Your task to perform on an android device: Go to wifi settings Image 0: 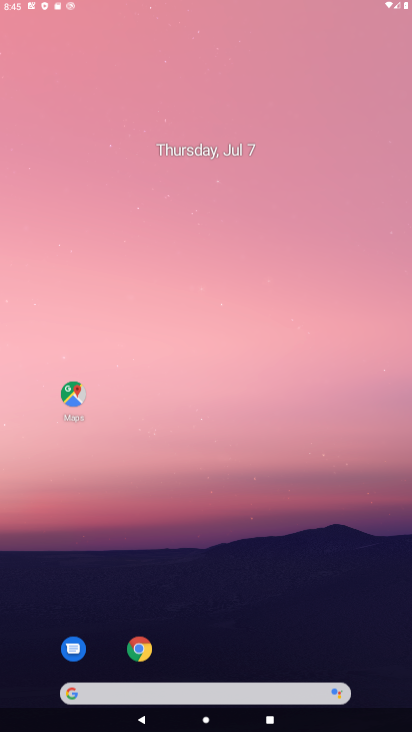
Step 0: click (138, 642)
Your task to perform on an android device: Go to wifi settings Image 1: 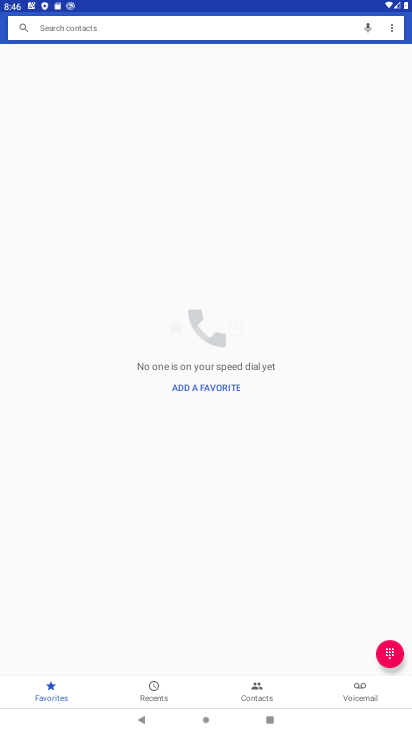
Step 1: press home button
Your task to perform on an android device: Go to wifi settings Image 2: 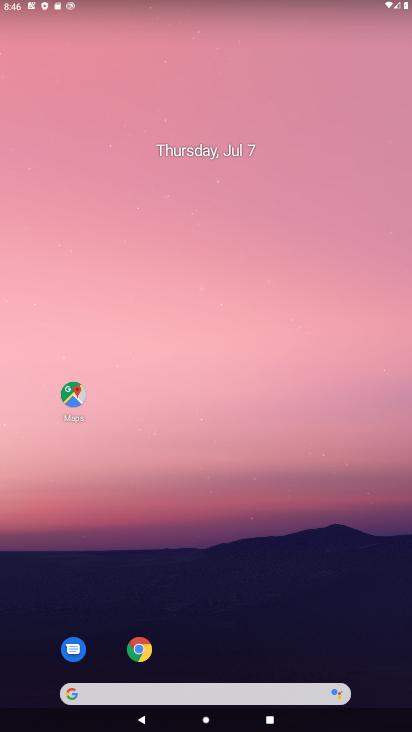
Step 2: drag from (233, 647) to (196, 6)
Your task to perform on an android device: Go to wifi settings Image 3: 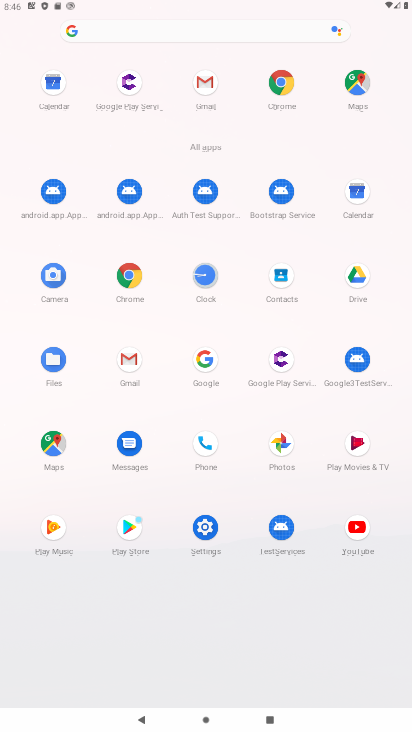
Step 3: click (204, 523)
Your task to perform on an android device: Go to wifi settings Image 4: 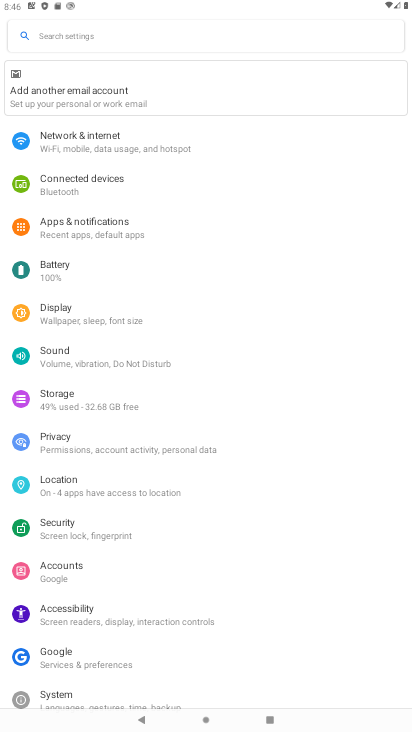
Step 4: click (53, 133)
Your task to perform on an android device: Go to wifi settings Image 5: 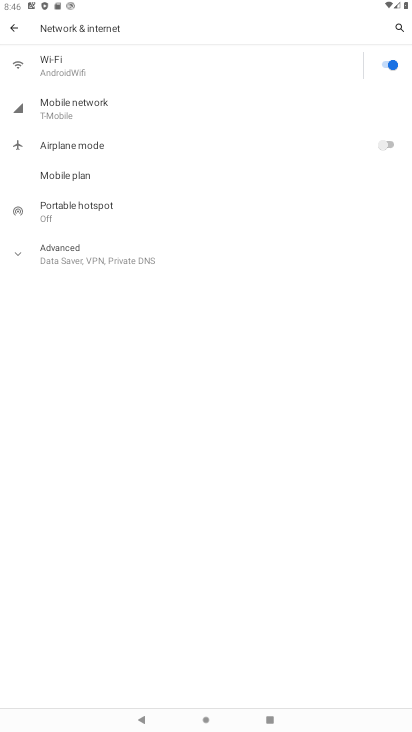
Step 5: click (56, 59)
Your task to perform on an android device: Go to wifi settings Image 6: 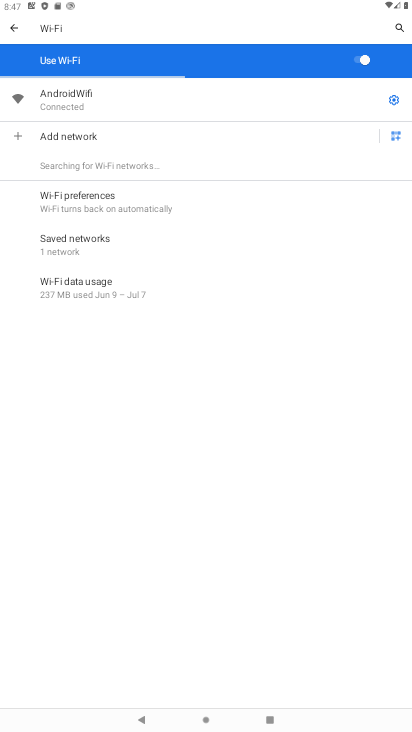
Step 6: task complete